Your task to perform on an android device: Go to sound settings Image 0: 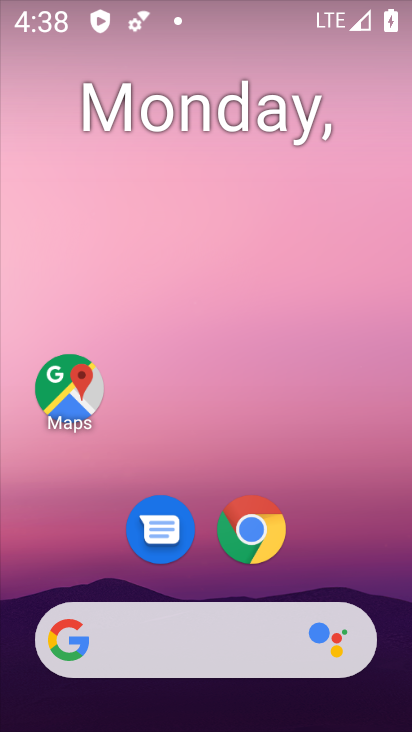
Step 0: drag from (362, 587) to (268, 128)
Your task to perform on an android device: Go to sound settings Image 1: 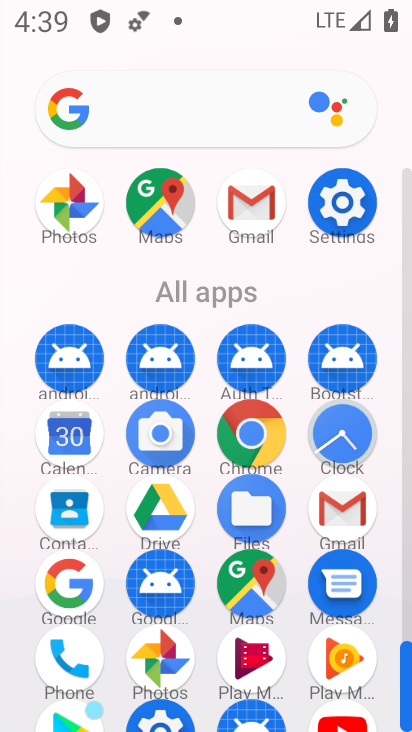
Step 1: click (356, 210)
Your task to perform on an android device: Go to sound settings Image 2: 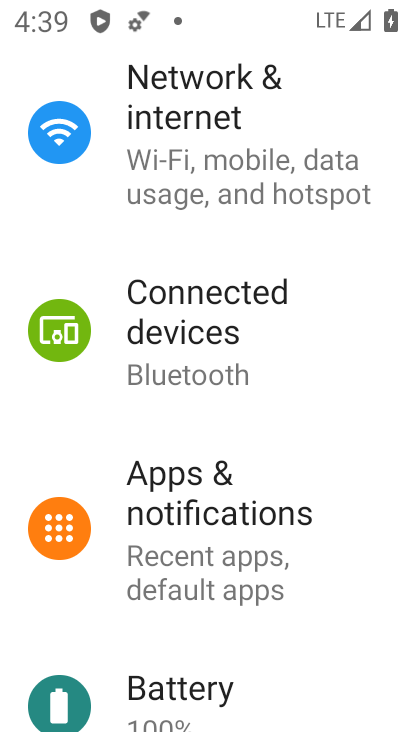
Step 2: drag from (261, 624) to (188, 145)
Your task to perform on an android device: Go to sound settings Image 3: 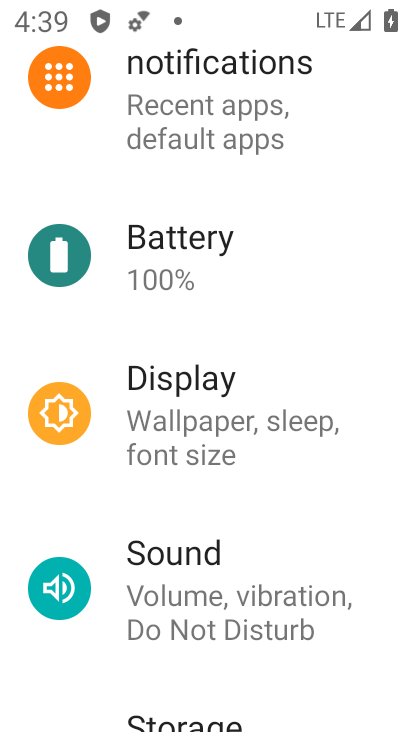
Step 3: click (228, 560)
Your task to perform on an android device: Go to sound settings Image 4: 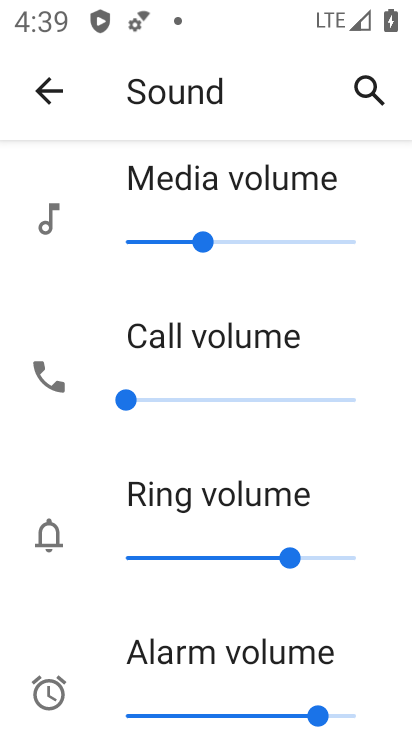
Step 4: task complete